Your task to perform on an android device: Search for the best rated 4K TV on Best Buy. Image 0: 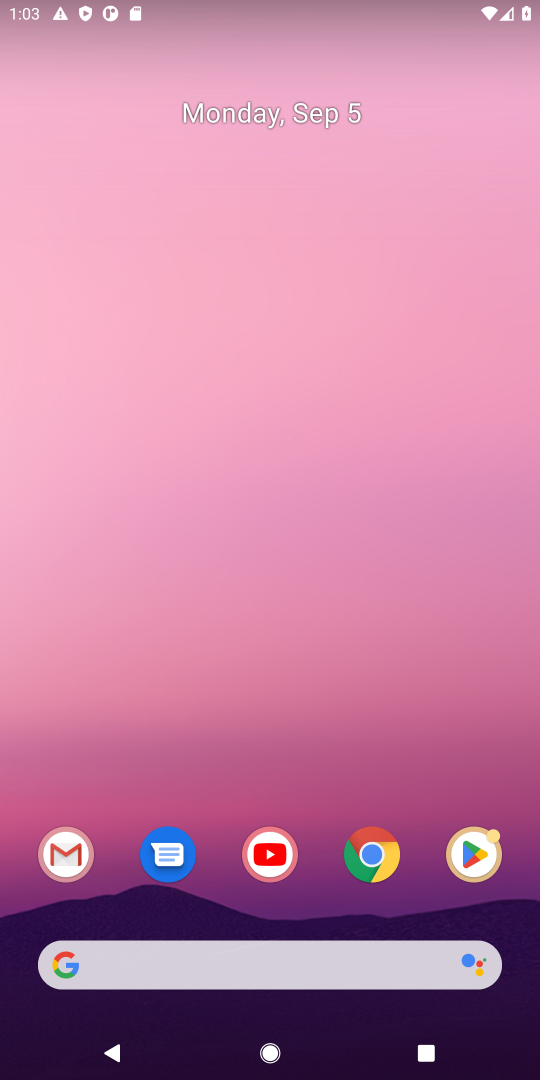
Step 0: click (361, 968)
Your task to perform on an android device: Search for the best rated 4K TV on Best Buy. Image 1: 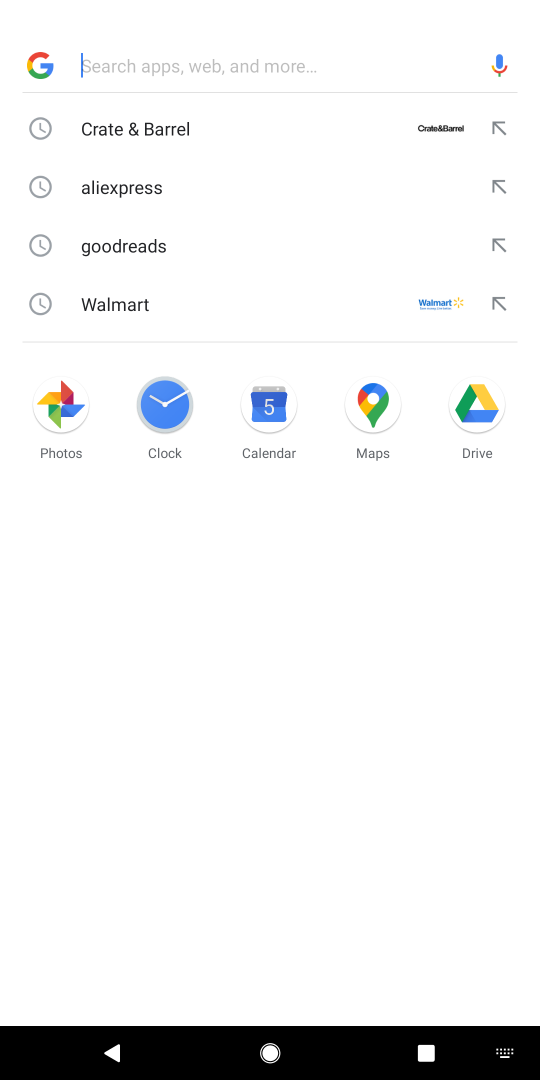
Step 1: type "best buy"
Your task to perform on an android device: Search for the best rated 4K TV on Best Buy. Image 2: 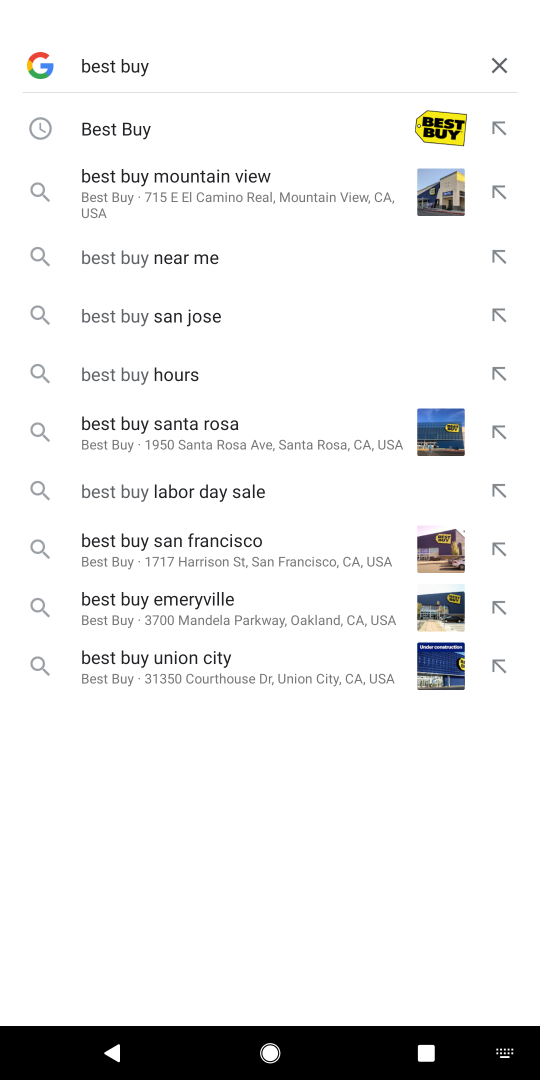
Step 2: press enter
Your task to perform on an android device: Search for the best rated 4K TV on Best Buy. Image 3: 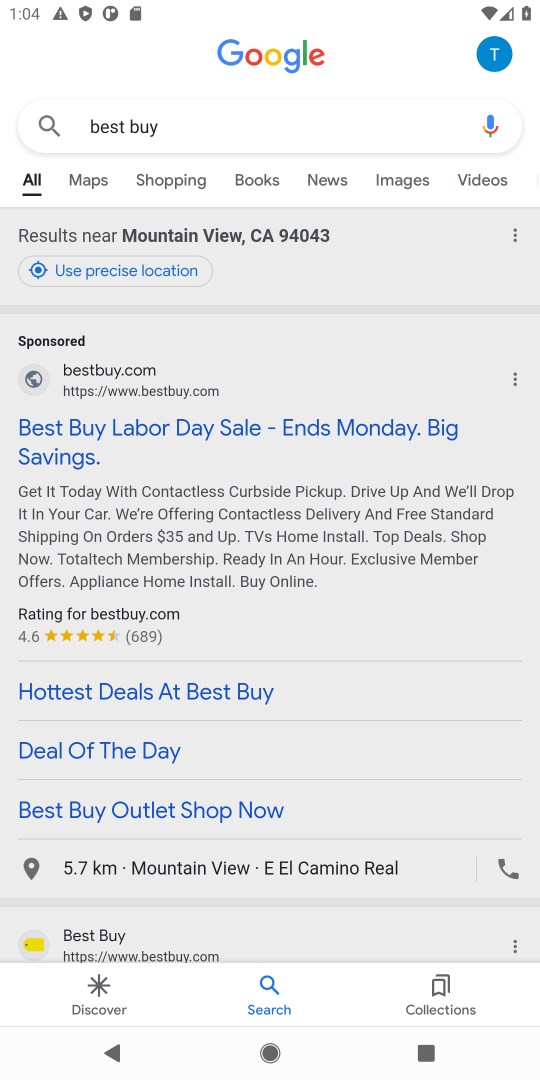
Step 3: click (108, 435)
Your task to perform on an android device: Search for the best rated 4K TV on Best Buy. Image 4: 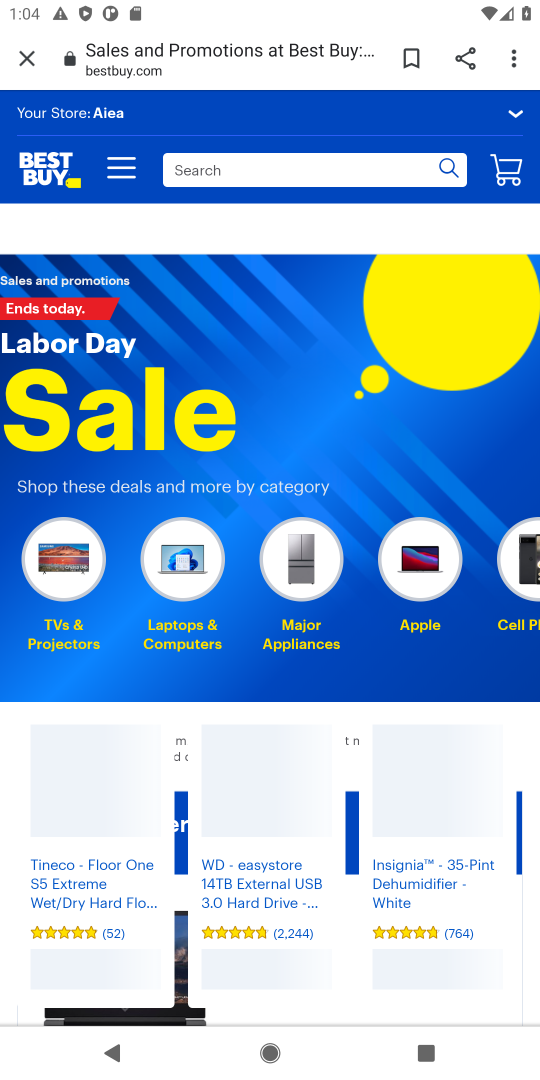
Step 4: click (233, 171)
Your task to perform on an android device: Search for the best rated 4K TV on Best Buy. Image 5: 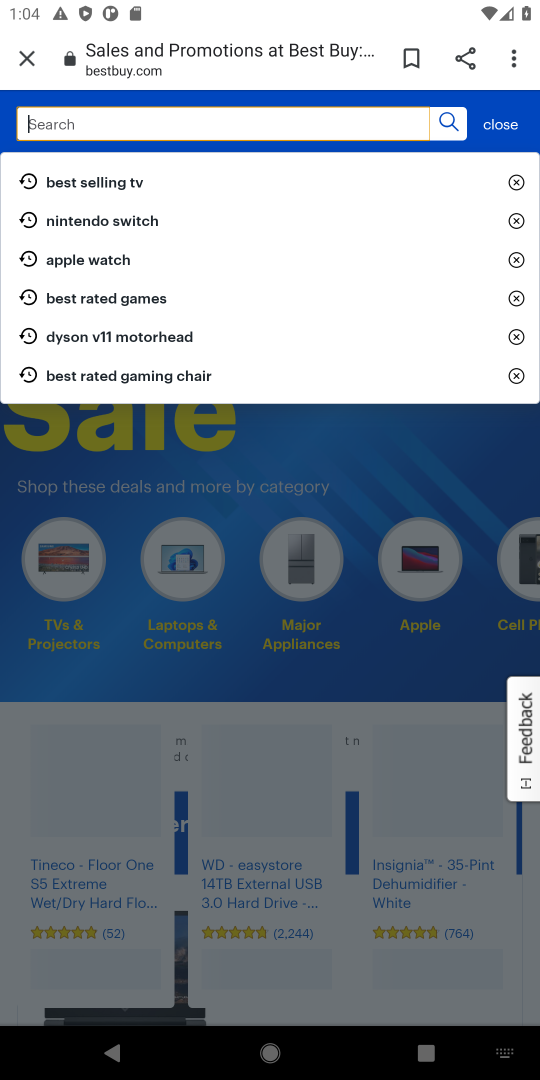
Step 5: press enter
Your task to perform on an android device: Search for the best rated 4K TV on Best Buy. Image 6: 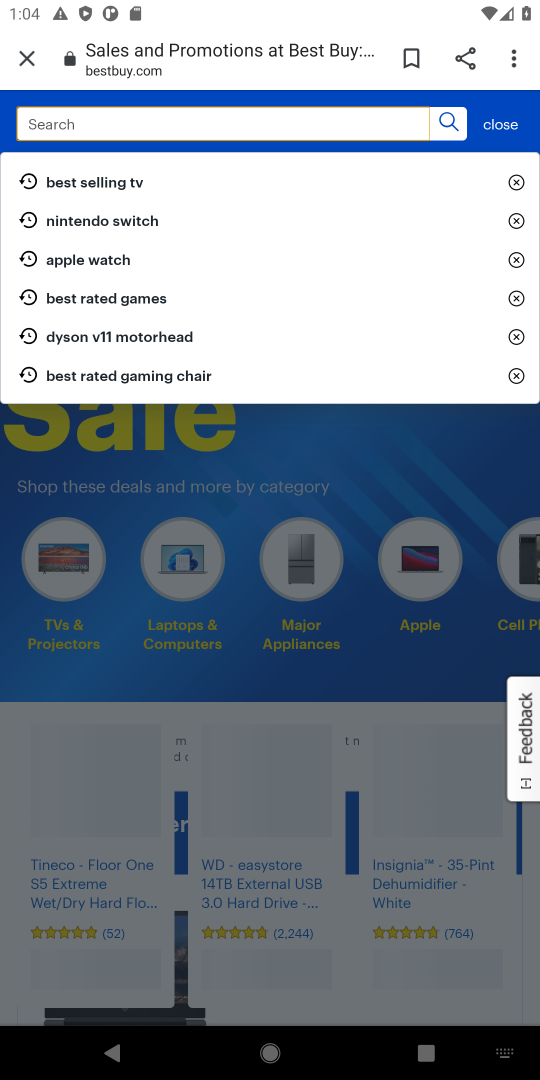
Step 6: type "best rated 4k tv"
Your task to perform on an android device: Search for the best rated 4K TV on Best Buy. Image 7: 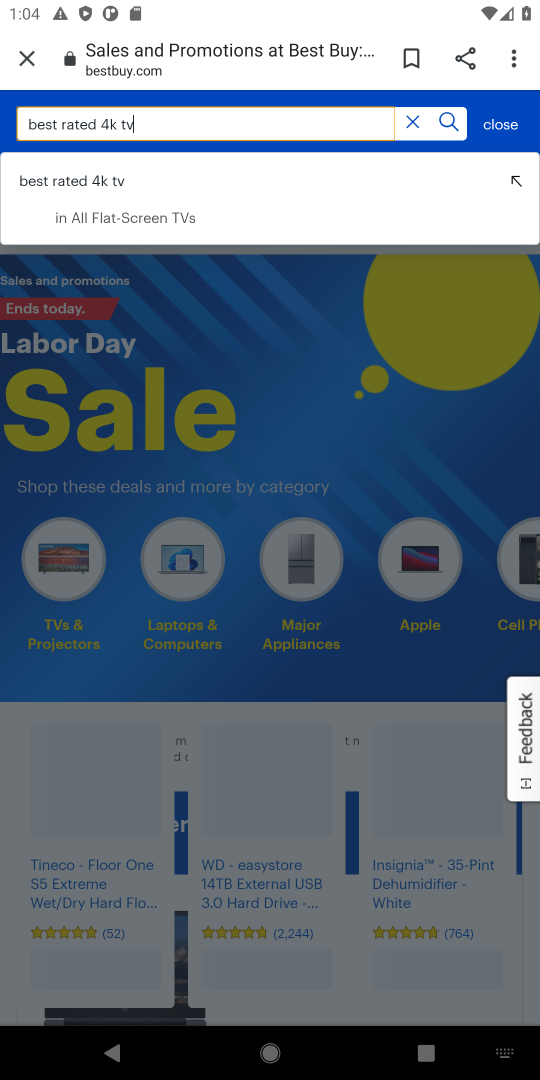
Step 7: click (99, 185)
Your task to perform on an android device: Search for the best rated 4K TV on Best Buy. Image 8: 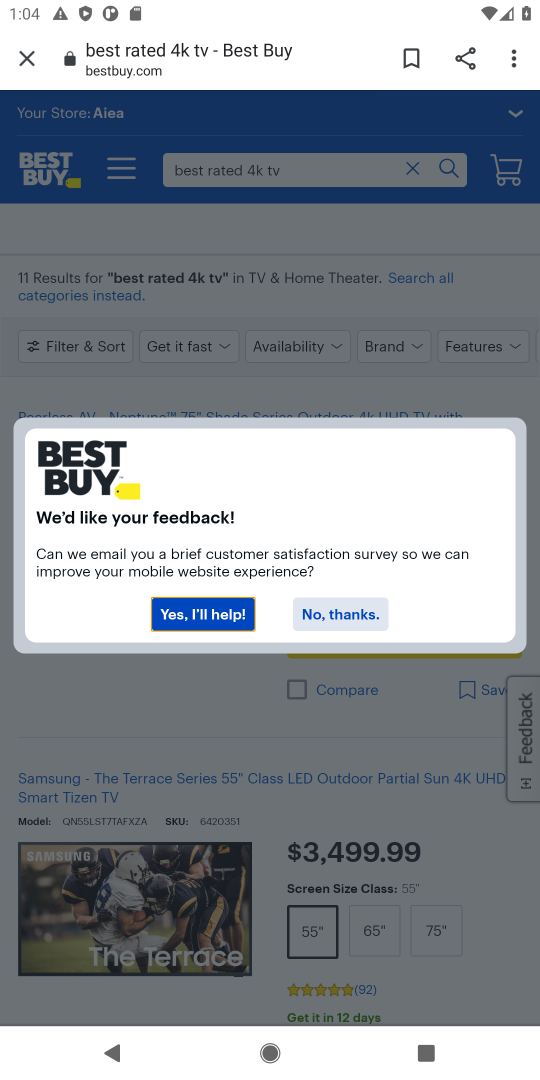
Step 8: task complete